Your task to perform on an android device: turn off data saver in the chrome app Image 0: 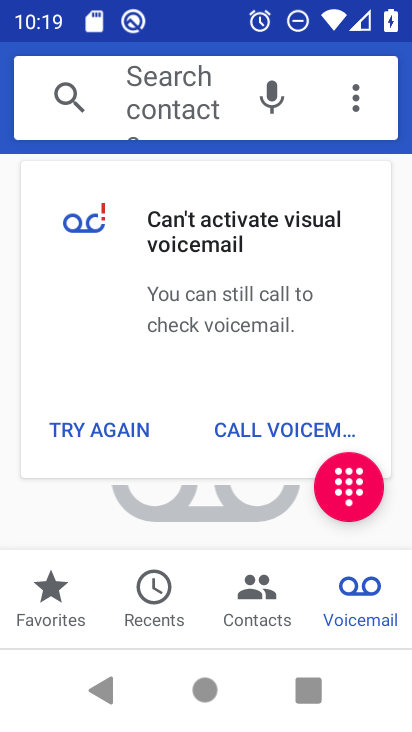
Step 0: press home button
Your task to perform on an android device: turn off data saver in the chrome app Image 1: 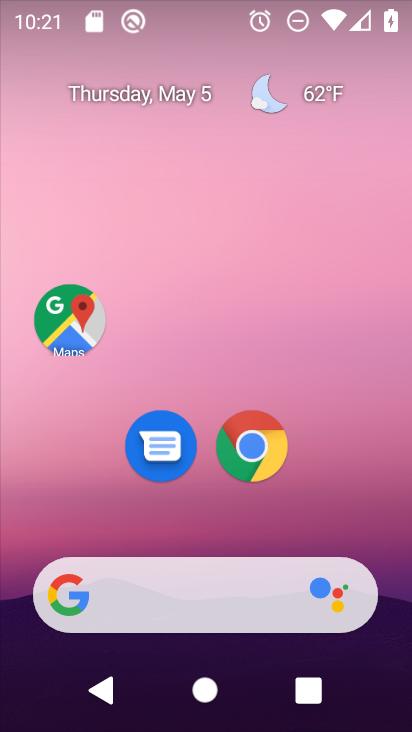
Step 1: drag from (249, 627) to (350, 143)
Your task to perform on an android device: turn off data saver in the chrome app Image 2: 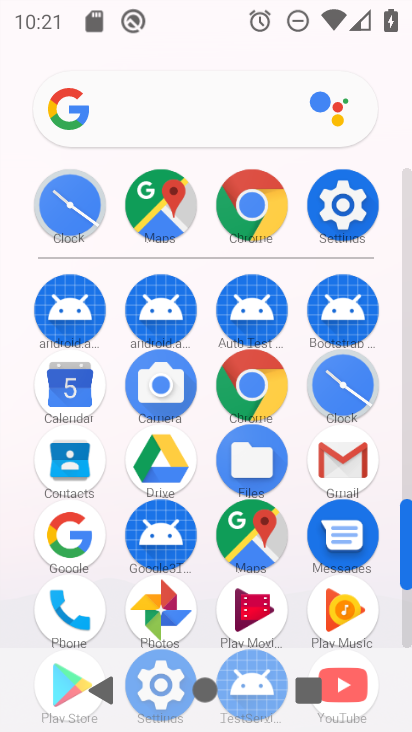
Step 2: click (248, 226)
Your task to perform on an android device: turn off data saver in the chrome app Image 3: 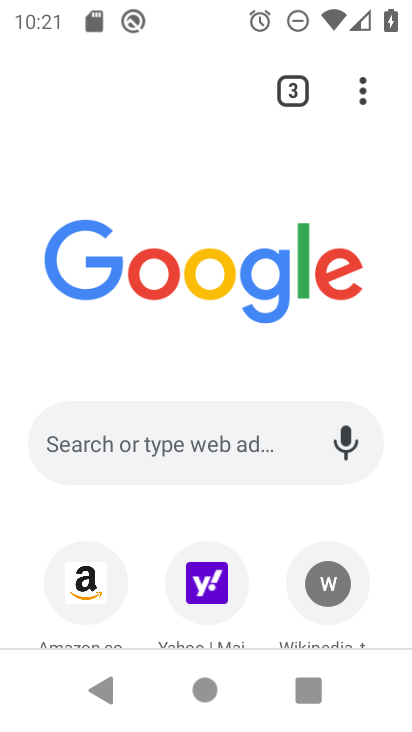
Step 3: click (352, 111)
Your task to perform on an android device: turn off data saver in the chrome app Image 4: 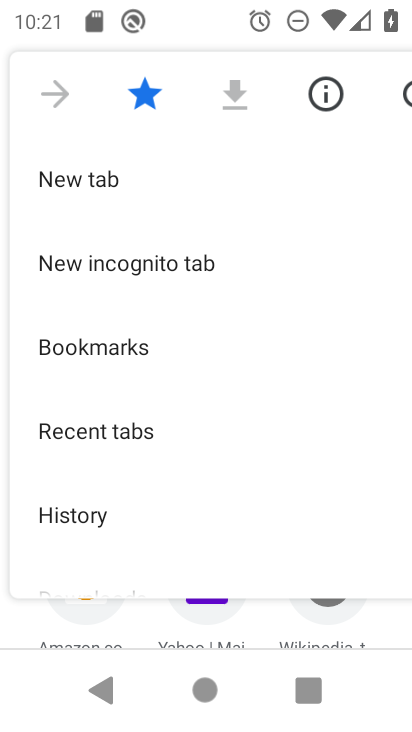
Step 4: drag from (139, 560) to (148, 311)
Your task to perform on an android device: turn off data saver in the chrome app Image 5: 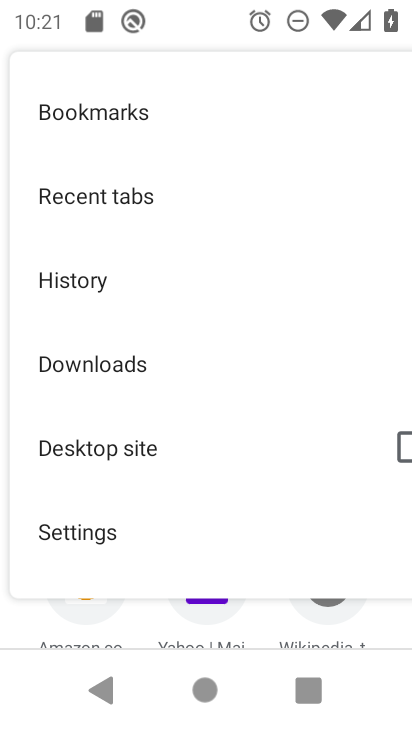
Step 5: click (95, 532)
Your task to perform on an android device: turn off data saver in the chrome app Image 6: 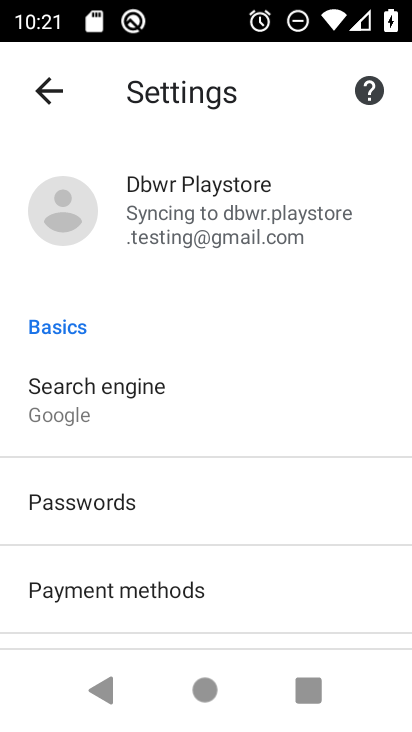
Step 6: drag from (146, 586) to (198, 257)
Your task to perform on an android device: turn off data saver in the chrome app Image 7: 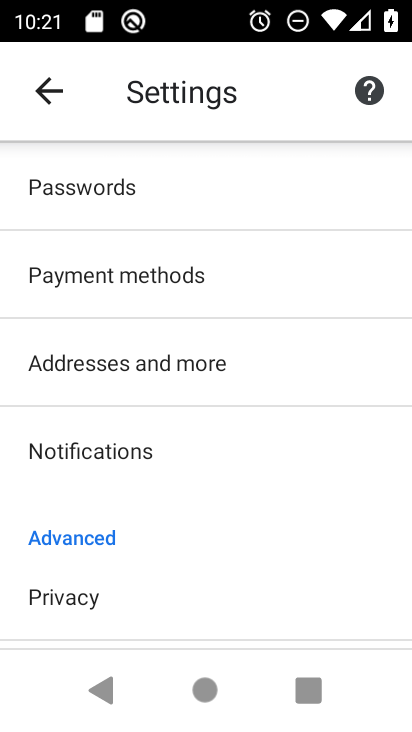
Step 7: drag from (179, 556) to (255, 297)
Your task to perform on an android device: turn off data saver in the chrome app Image 8: 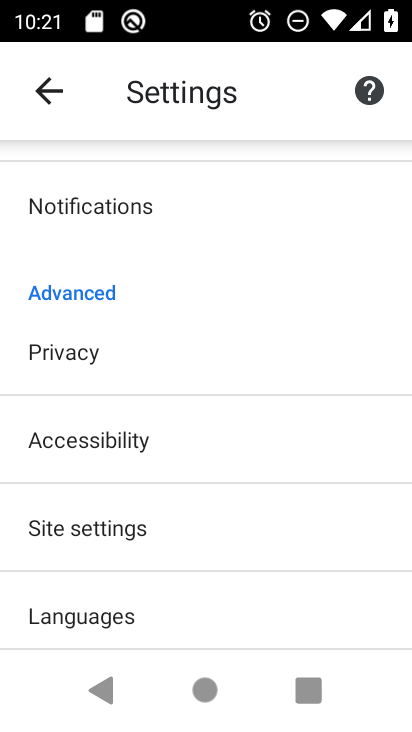
Step 8: drag from (160, 563) to (202, 392)
Your task to perform on an android device: turn off data saver in the chrome app Image 9: 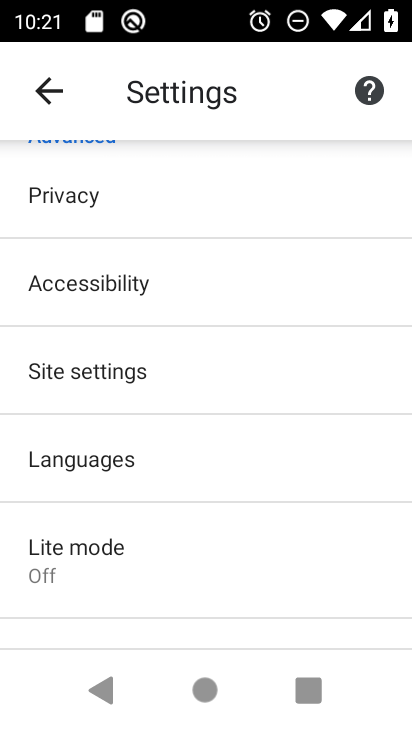
Step 9: click (146, 572)
Your task to perform on an android device: turn off data saver in the chrome app Image 10: 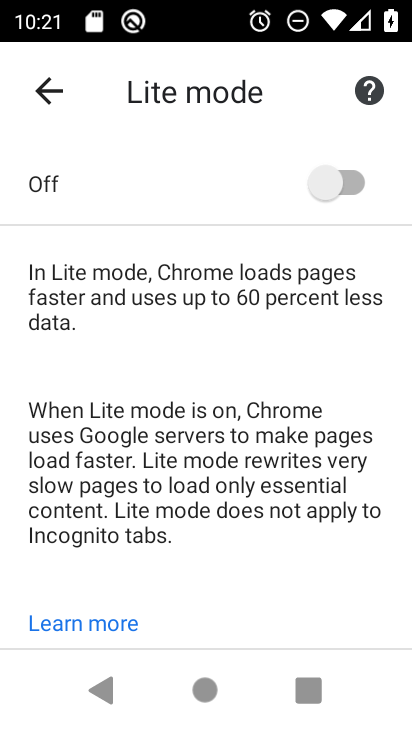
Step 10: click (342, 191)
Your task to perform on an android device: turn off data saver in the chrome app Image 11: 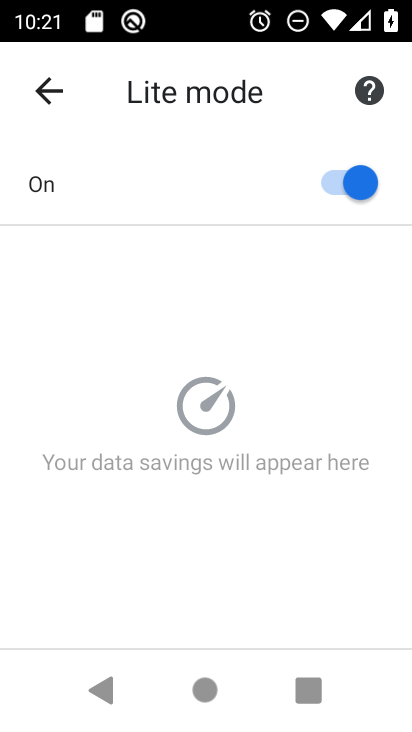
Step 11: click (342, 191)
Your task to perform on an android device: turn off data saver in the chrome app Image 12: 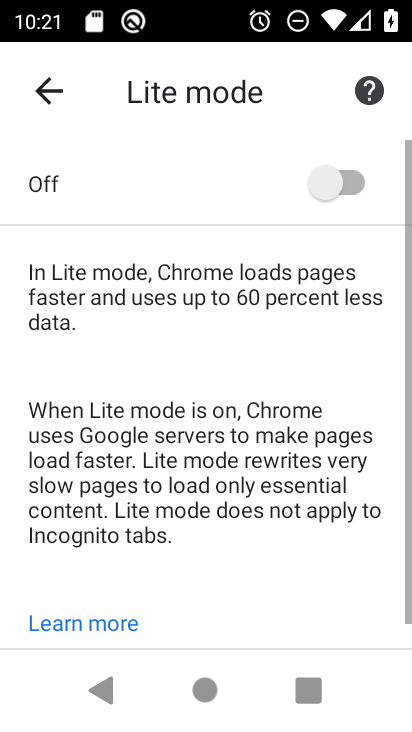
Step 12: task complete